Your task to perform on an android device: add a contact in the contacts app Image 0: 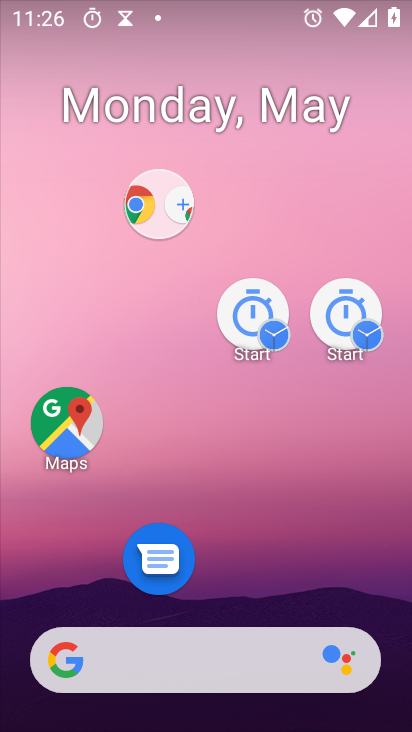
Step 0: drag from (264, 561) to (159, 78)
Your task to perform on an android device: add a contact in the contacts app Image 1: 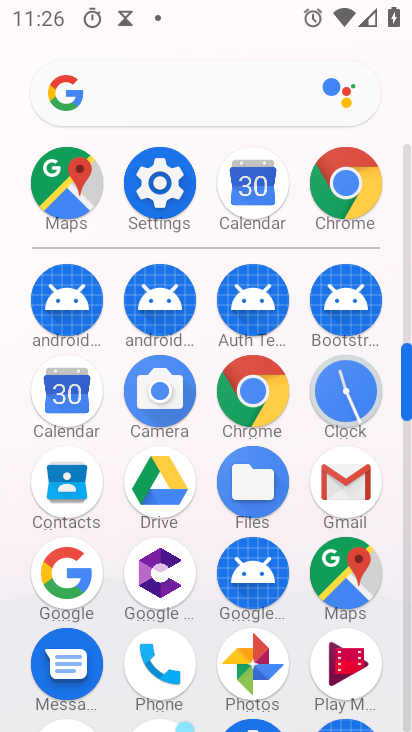
Step 1: drag from (178, 508) to (129, 59)
Your task to perform on an android device: add a contact in the contacts app Image 2: 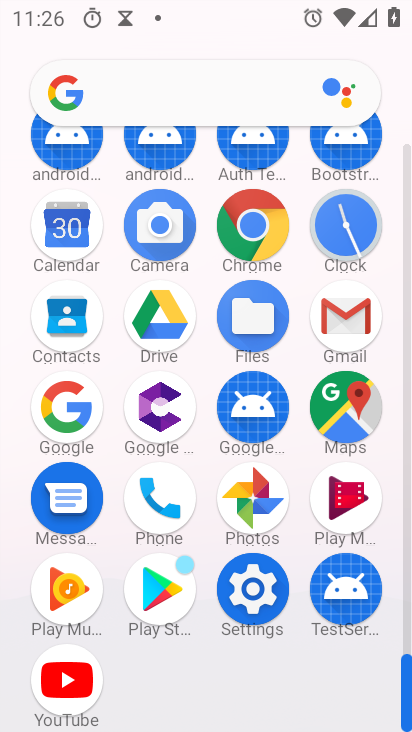
Step 2: click (63, 333)
Your task to perform on an android device: add a contact in the contacts app Image 3: 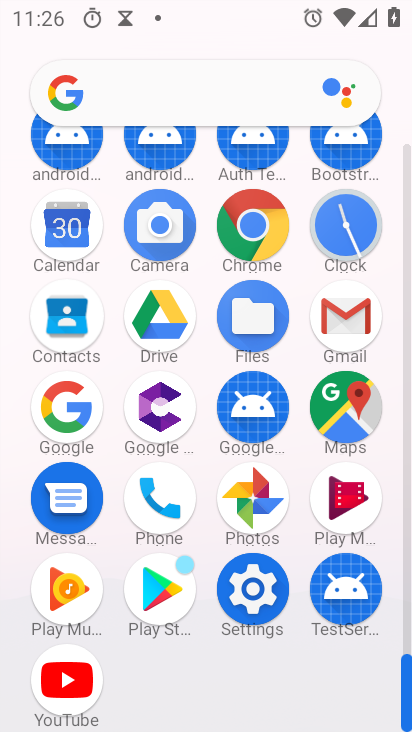
Step 3: click (65, 333)
Your task to perform on an android device: add a contact in the contacts app Image 4: 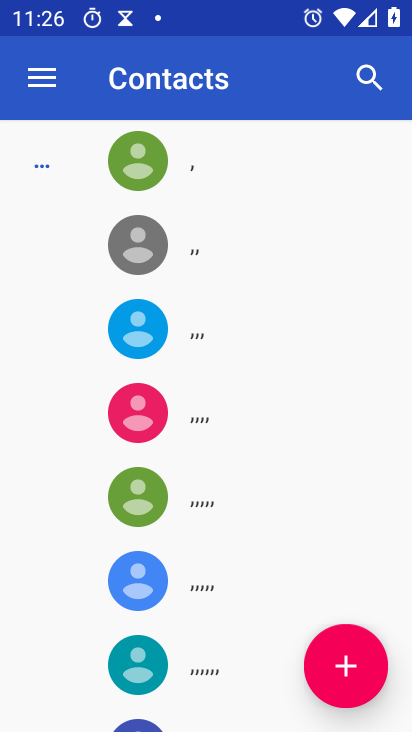
Step 4: click (344, 665)
Your task to perform on an android device: add a contact in the contacts app Image 5: 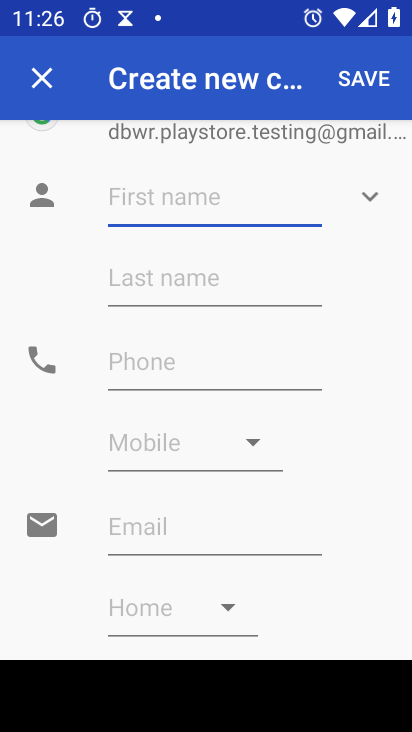
Step 5: type "hgashgiash"
Your task to perform on an android device: add a contact in the contacts app Image 6: 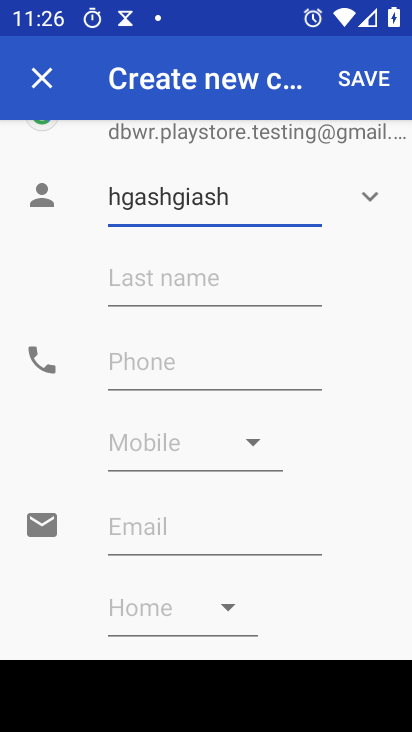
Step 6: click (127, 358)
Your task to perform on an android device: add a contact in the contacts app Image 7: 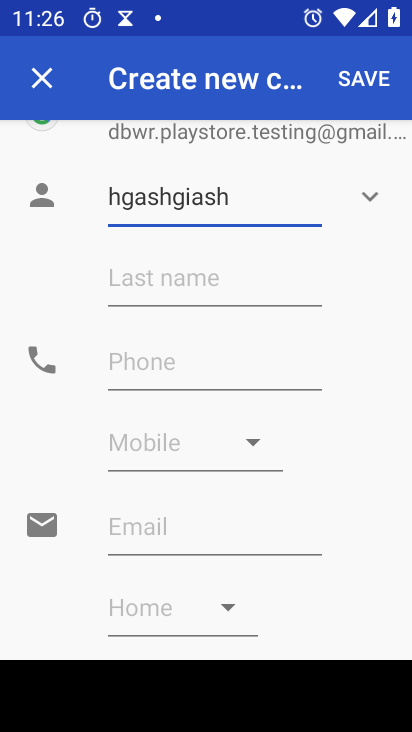
Step 7: click (127, 358)
Your task to perform on an android device: add a contact in the contacts app Image 8: 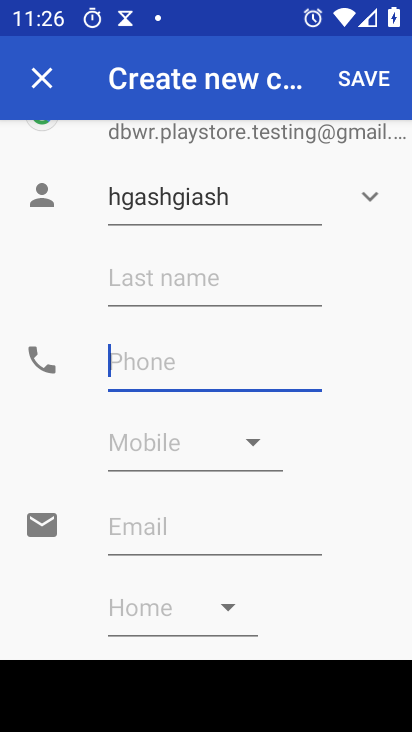
Step 8: click (127, 358)
Your task to perform on an android device: add a contact in the contacts app Image 9: 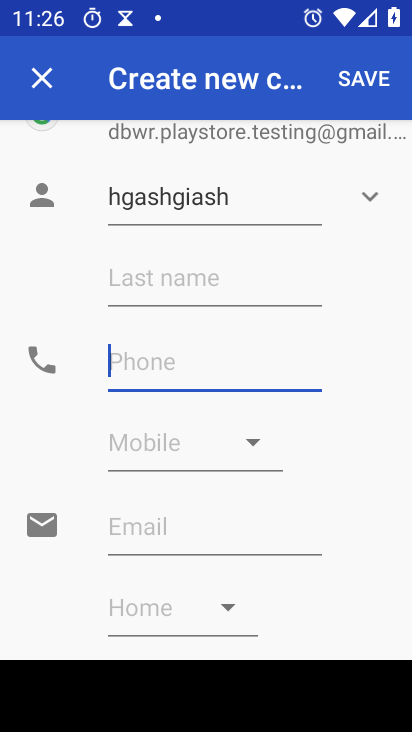
Step 9: type "8764784r667827"
Your task to perform on an android device: add a contact in the contacts app Image 10: 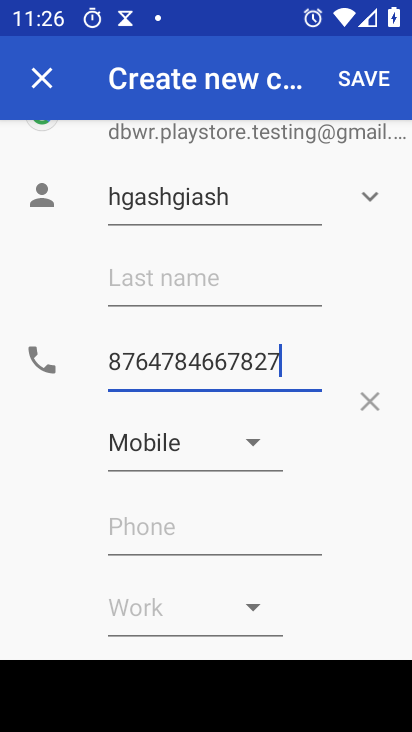
Step 10: click (340, 87)
Your task to perform on an android device: add a contact in the contacts app Image 11: 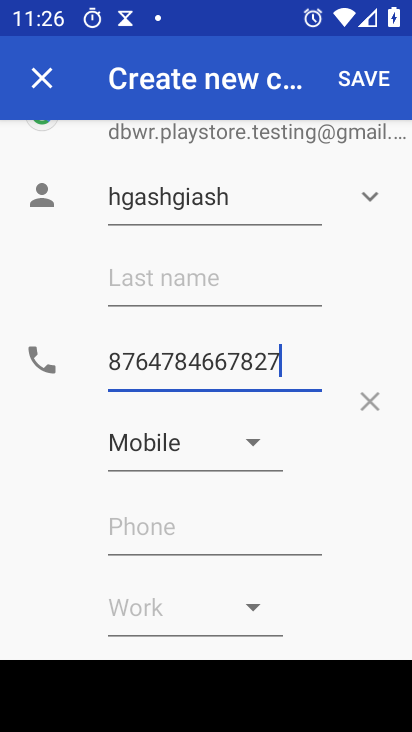
Step 11: click (347, 79)
Your task to perform on an android device: add a contact in the contacts app Image 12: 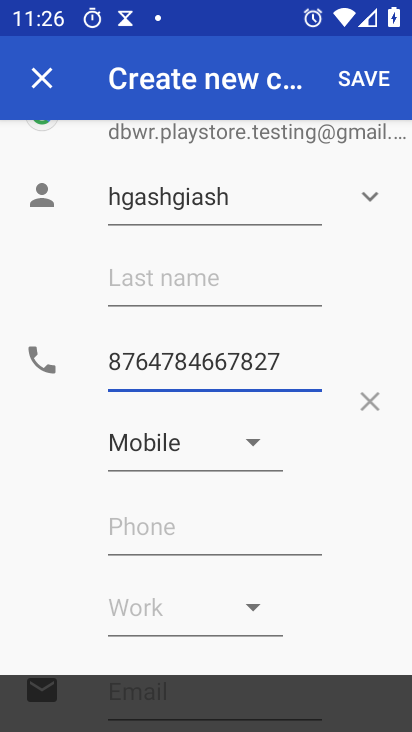
Step 12: click (357, 78)
Your task to perform on an android device: add a contact in the contacts app Image 13: 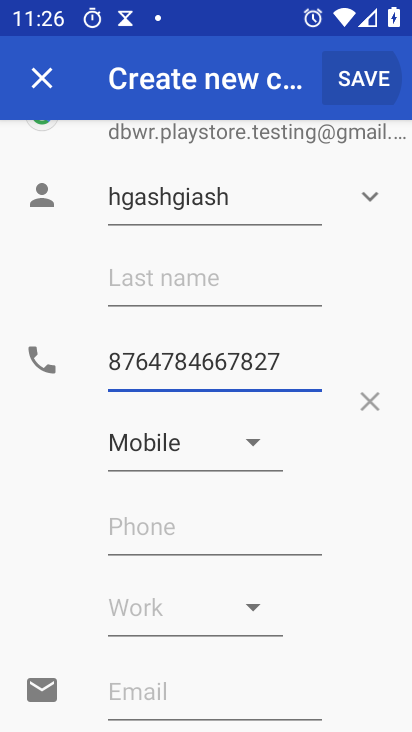
Step 13: click (362, 80)
Your task to perform on an android device: add a contact in the contacts app Image 14: 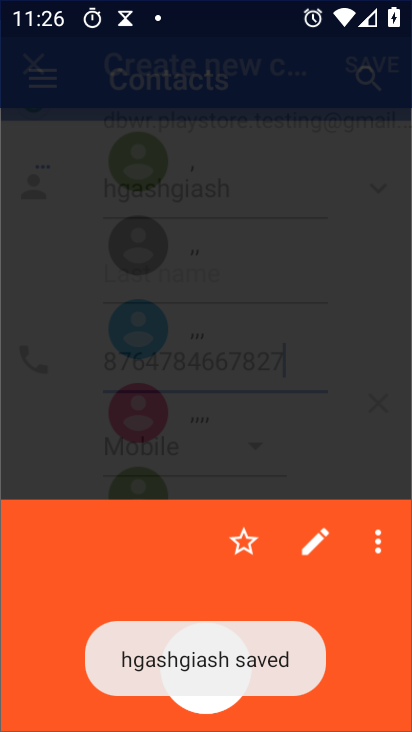
Step 14: click (365, 79)
Your task to perform on an android device: add a contact in the contacts app Image 15: 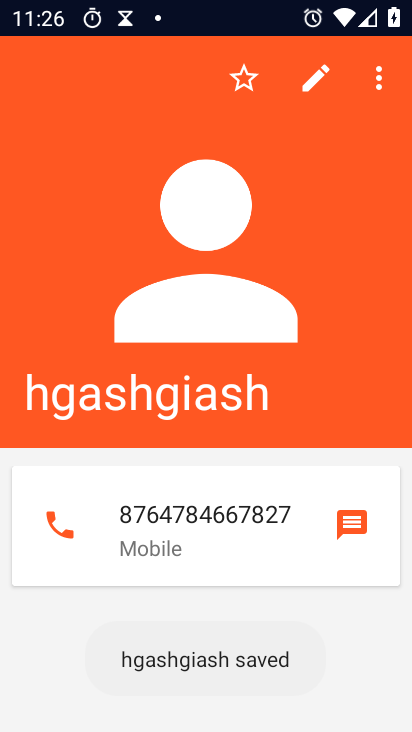
Step 15: click (365, 79)
Your task to perform on an android device: add a contact in the contacts app Image 16: 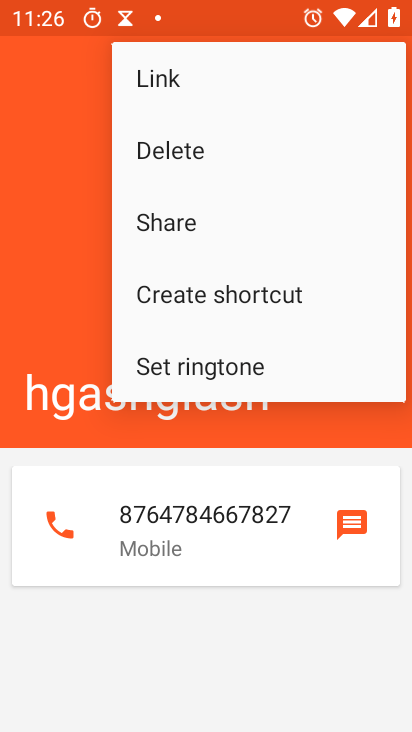
Step 16: click (39, 152)
Your task to perform on an android device: add a contact in the contacts app Image 17: 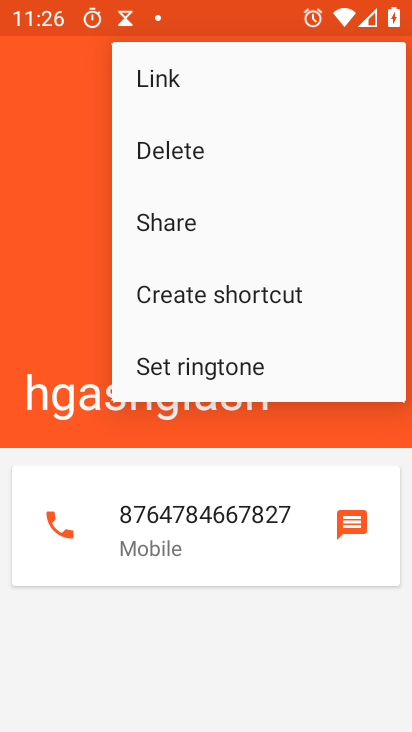
Step 17: click (40, 152)
Your task to perform on an android device: add a contact in the contacts app Image 18: 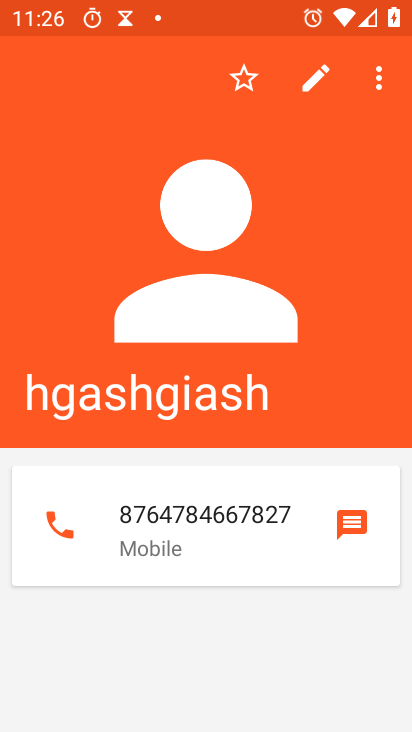
Step 18: click (40, 152)
Your task to perform on an android device: add a contact in the contacts app Image 19: 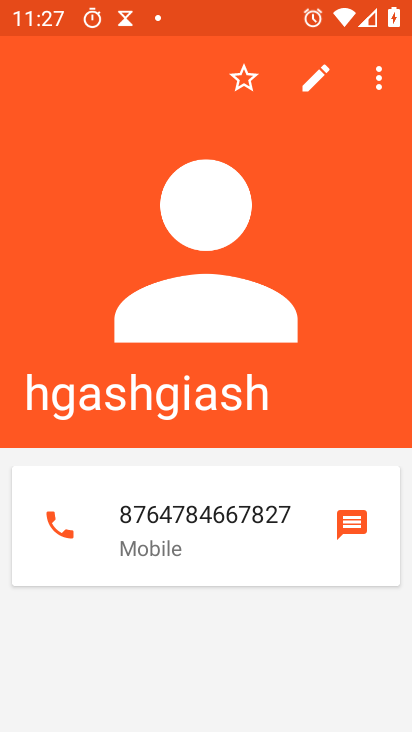
Step 19: task complete